Your task to perform on an android device: Open notification settings Image 0: 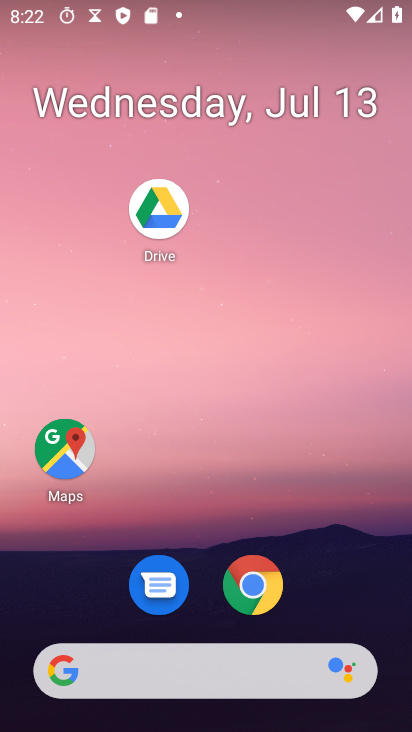
Step 0: drag from (193, 653) to (308, 118)
Your task to perform on an android device: Open notification settings Image 1: 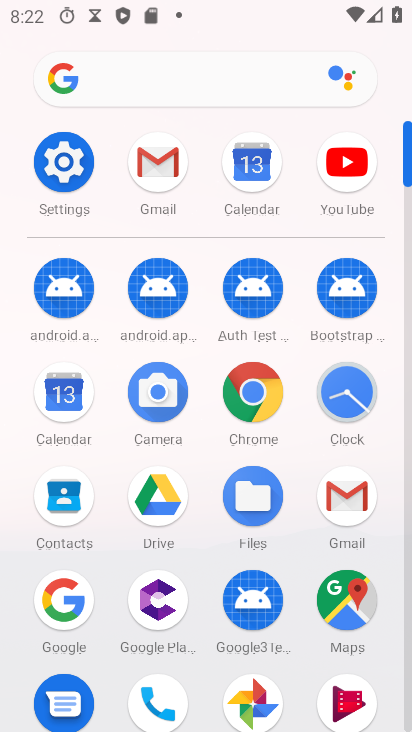
Step 1: click (75, 152)
Your task to perform on an android device: Open notification settings Image 2: 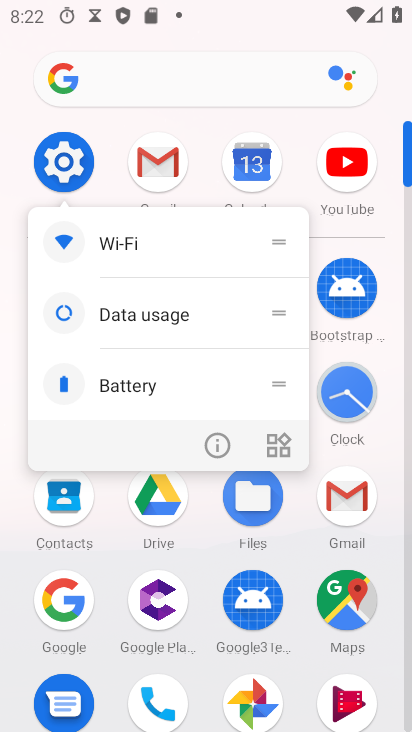
Step 2: click (66, 161)
Your task to perform on an android device: Open notification settings Image 3: 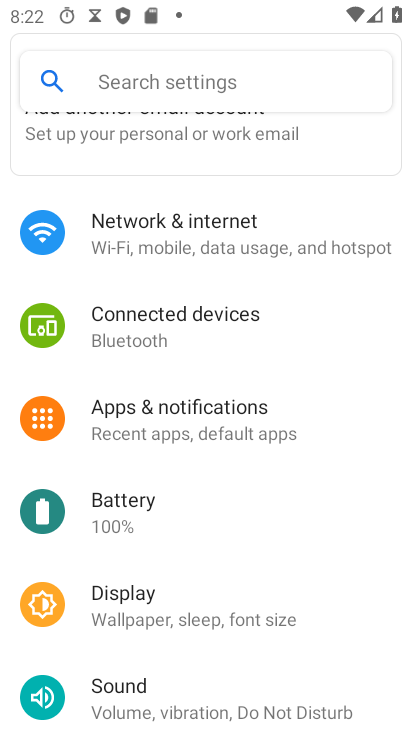
Step 3: click (203, 413)
Your task to perform on an android device: Open notification settings Image 4: 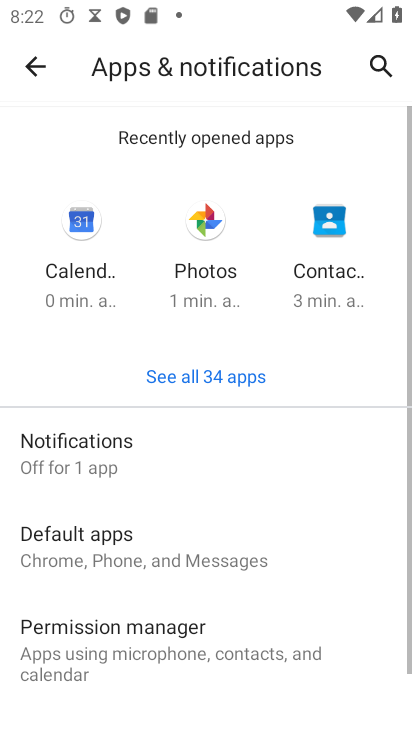
Step 4: click (106, 448)
Your task to perform on an android device: Open notification settings Image 5: 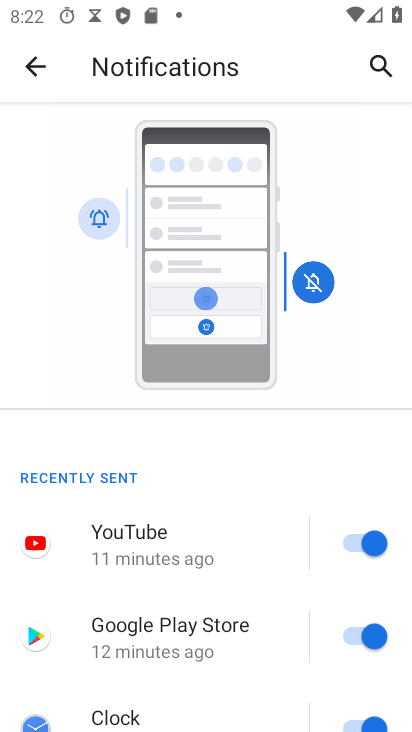
Step 5: task complete